Your task to perform on an android device: change timer sound Image 0: 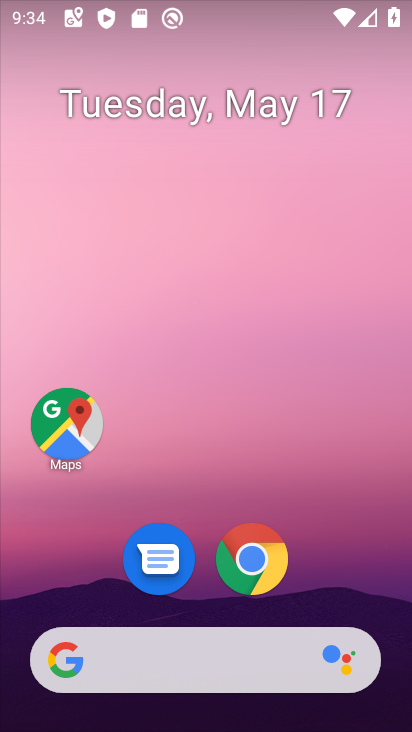
Step 0: drag from (194, 638) to (330, 122)
Your task to perform on an android device: change timer sound Image 1: 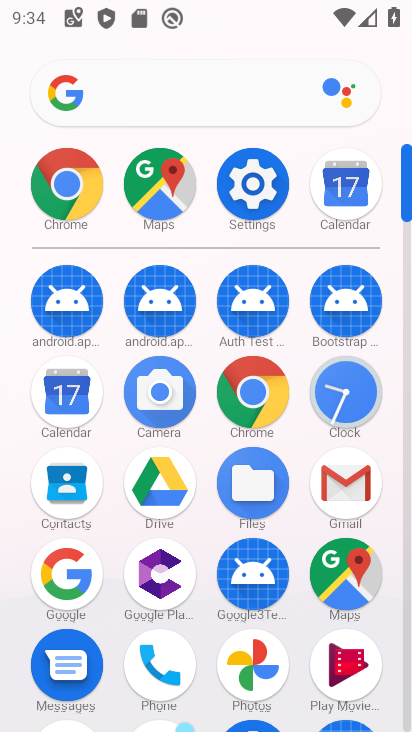
Step 1: click (237, 181)
Your task to perform on an android device: change timer sound Image 2: 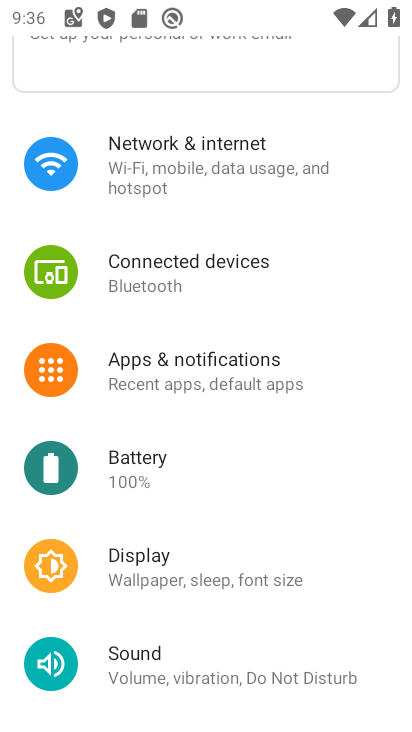
Step 2: press home button
Your task to perform on an android device: change timer sound Image 3: 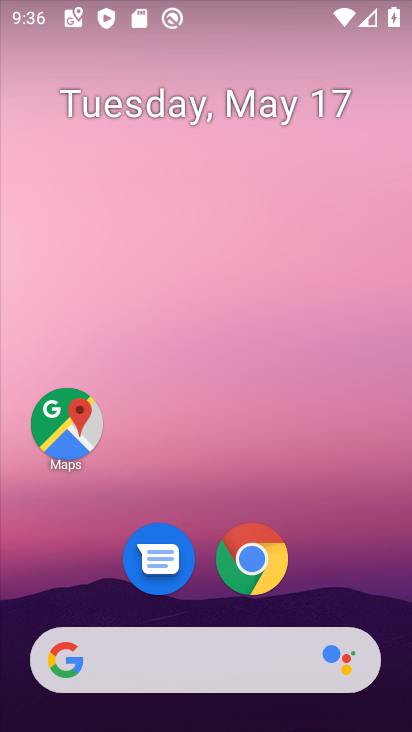
Step 3: drag from (210, 714) to (278, 126)
Your task to perform on an android device: change timer sound Image 4: 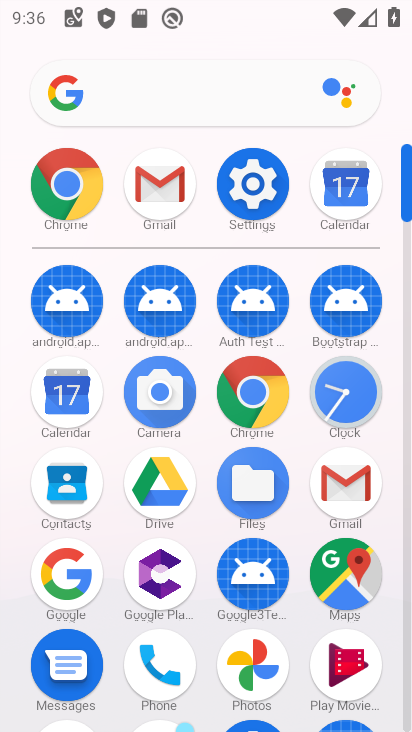
Step 4: click (368, 386)
Your task to perform on an android device: change timer sound Image 5: 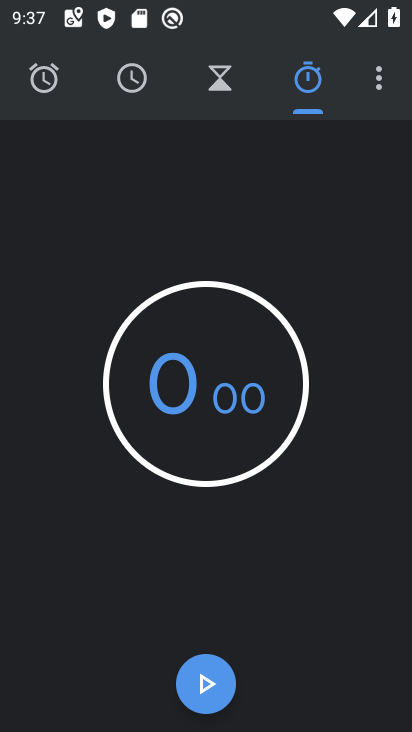
Step 5: click (381, 82)
Your task to perform on an android device: change timer sound Image 6: 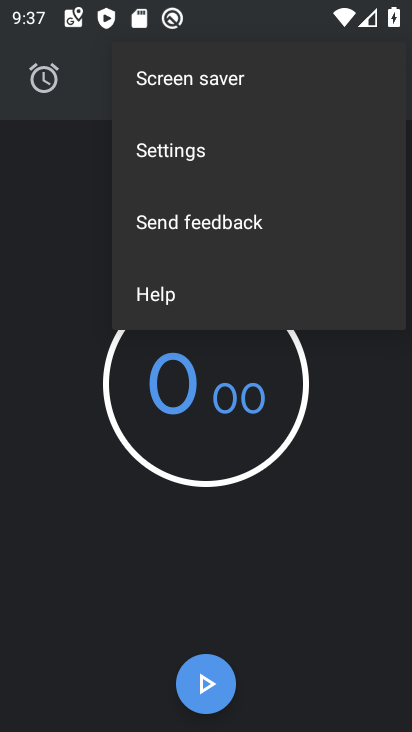
Step 6: click (216, 147)
Your task to perform on an android device: change timer sound Image 7: 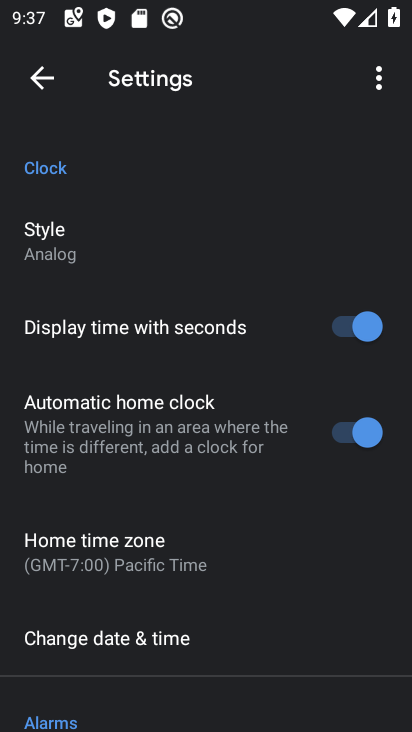
Step 7: drag from (266, 675) to (264, 40)
Your task to perform on an android device: change timer sound Image 8: 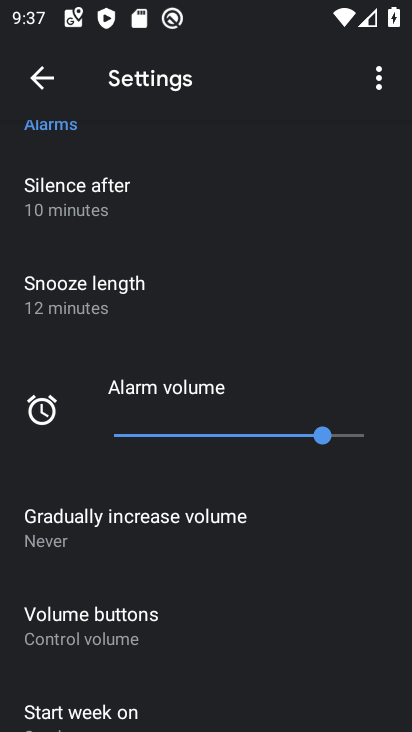
Step 8: drag from (219, 669) to (310, 174)
Your task to perform on an android device: change timer sound Image 9: 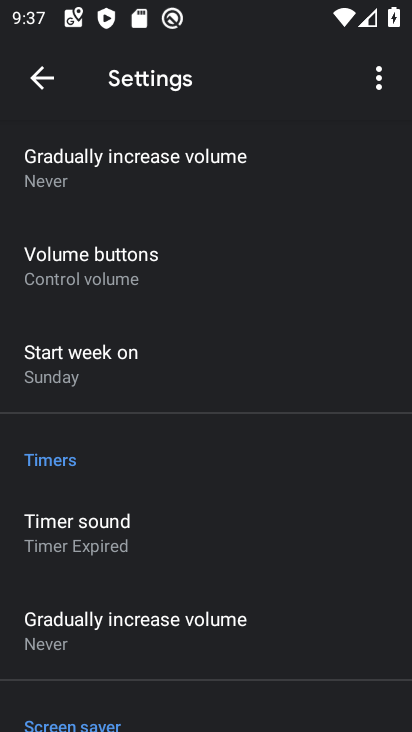
Step 9: click (121, 539)
Your task to perform on an android device: change timer sound Image 10: 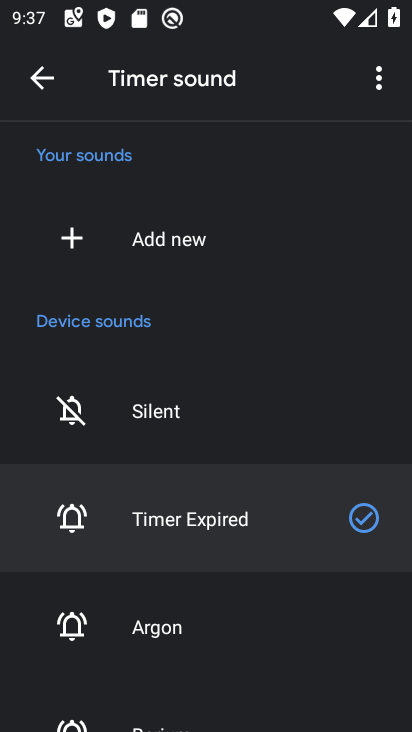
Step 10: click (191, 636)
Your task to perform on an android device: change timer sound Image 11: 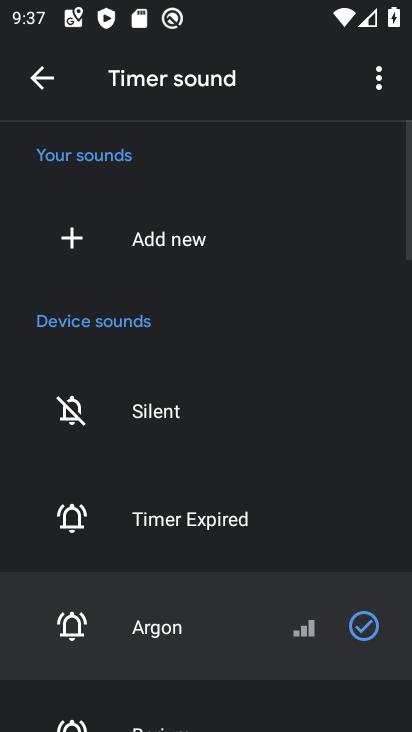
Step 11: task complete